Your task to perform on an android device: Add "alienware area 51" to the cart on target.com, then select checkout. Image 0: 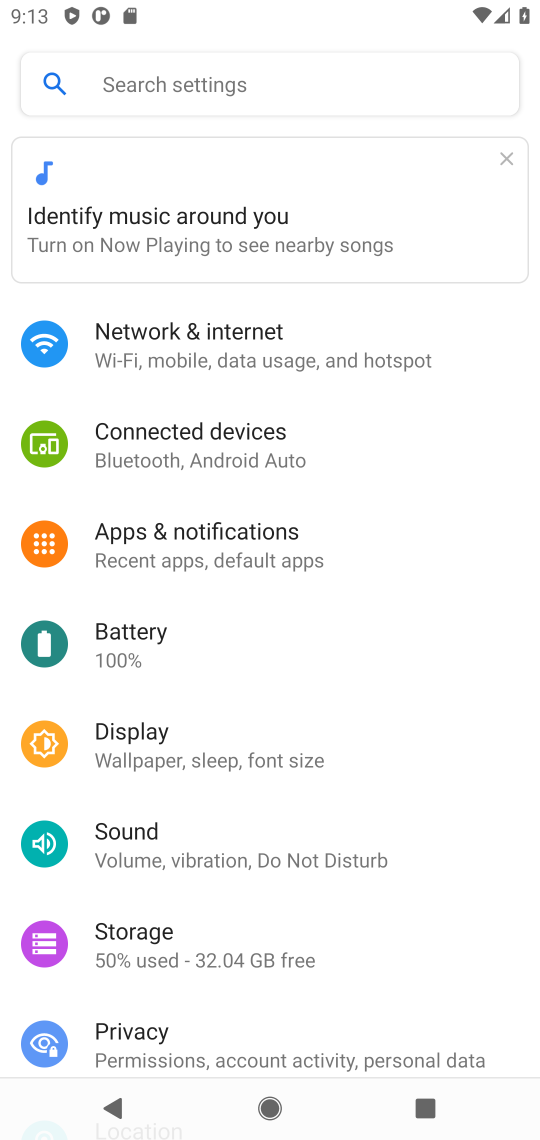
Step 0: press home button
Your task to perform on an android device: Add "alienware area 51" to the cart on target.com, then select checkout. Image 1: 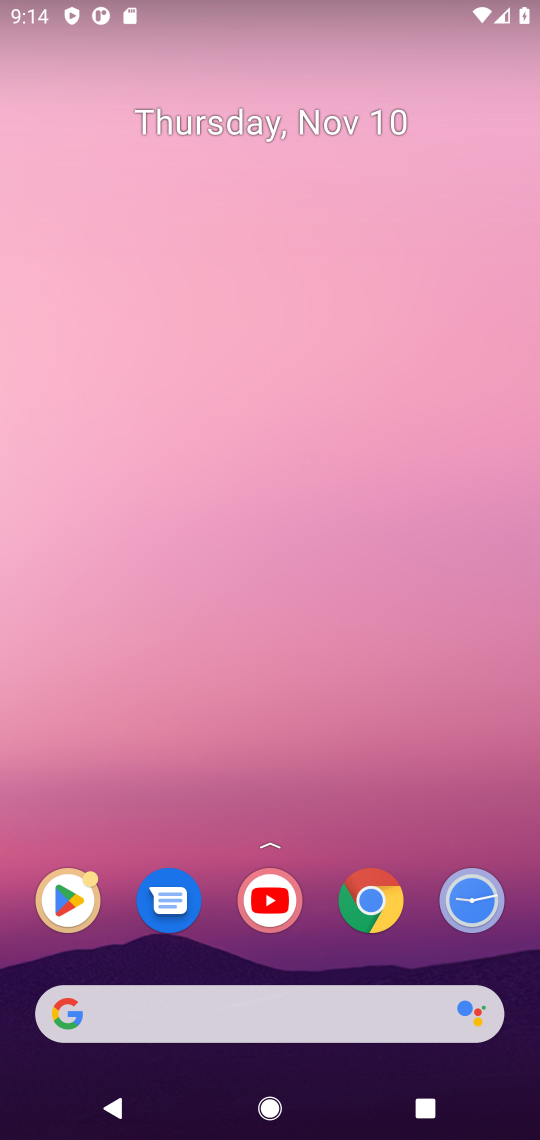
Step 1: click (375, 892)
Your task to perform on an android device: Add "alienware area 51" to the cart on target.com, then select checkout. Image 2: 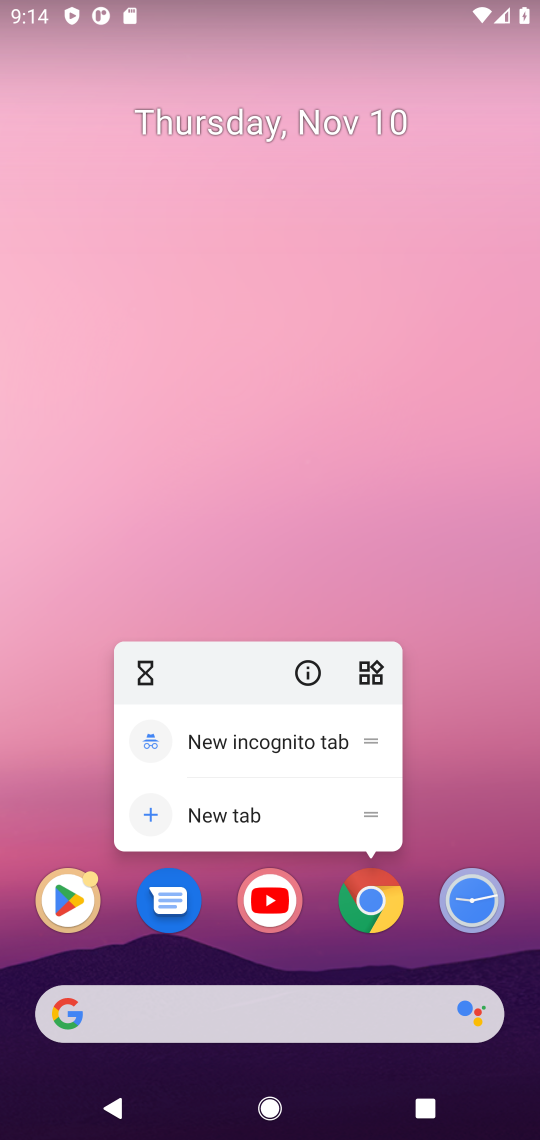
Step 2: click (375, 899)
Your task to perform on an android device: Add "alienware area 51" to the cart on target.com, then select checkout. Image 3: 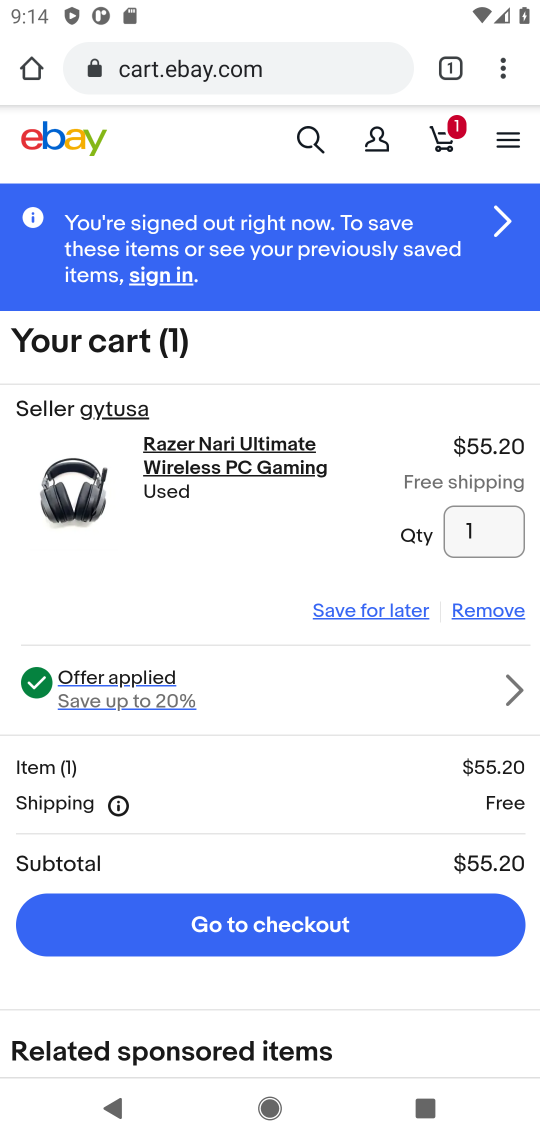
Step 3: click (328, 61)
Your task to perform on an android device: Add "alienware area 51" to the cart on target.com, then select checkout. Image 4: 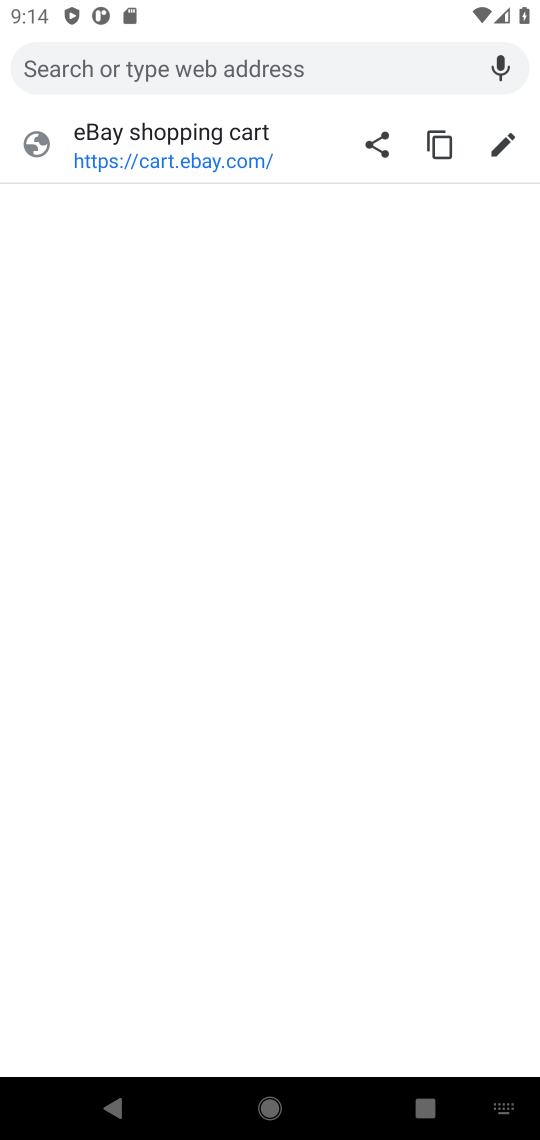
Step 4: type "target.com"
Your task to perform on an android device: Add "alienware area 51" to the cart on target.com, then select checkout. Image 5: 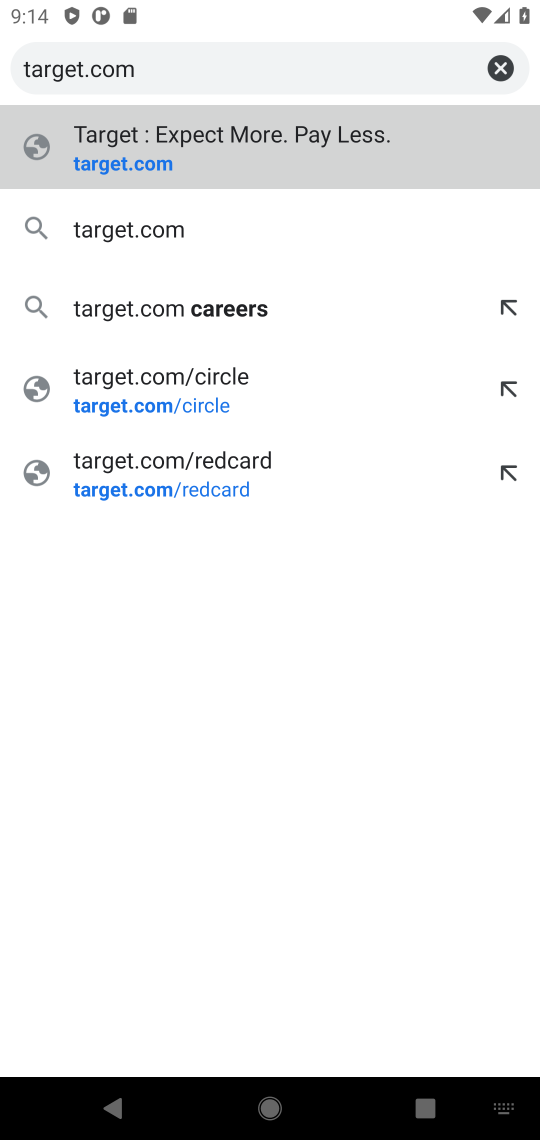
Step 5: press enter
Your task to perform on an android device: Add "alienware area 51" to the cart on target.com, then select checkout. Image 6: 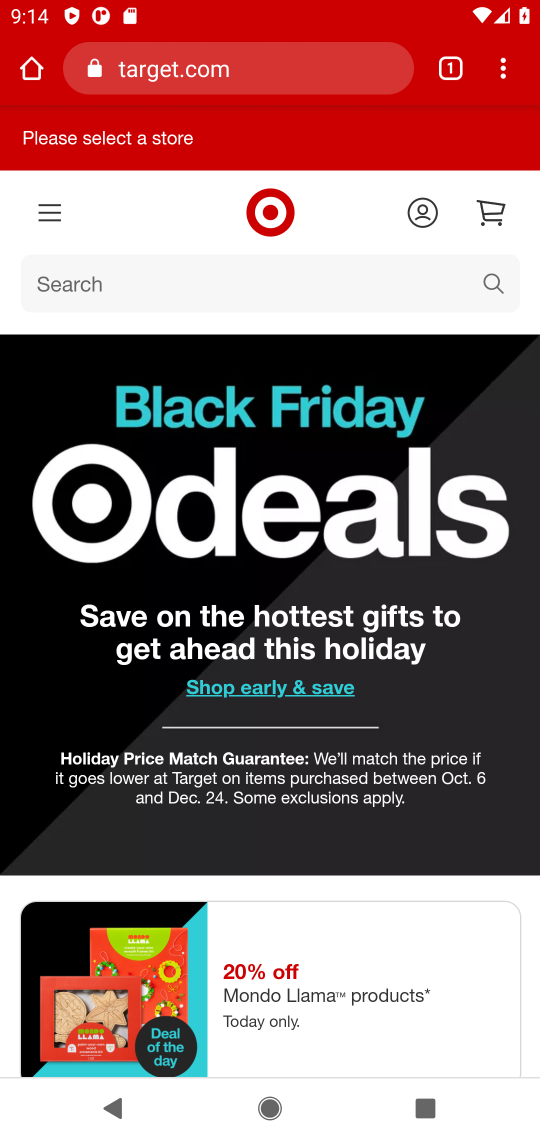
Step 6: click (177, 289)
Your task to perform on an android device: Add "alienware area 51" to the cart on target.com, then select checkout. Image 7: 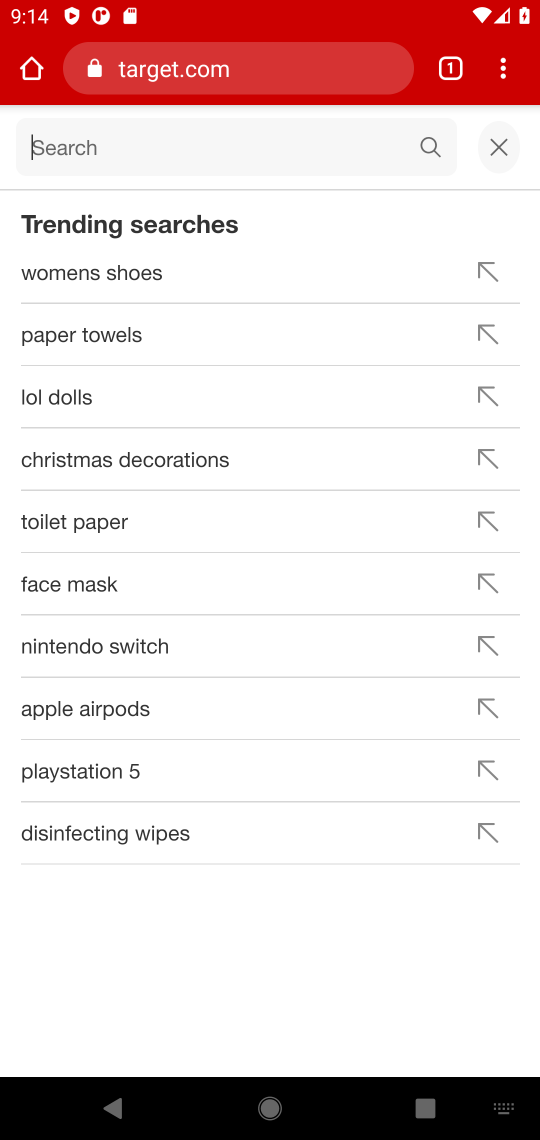
Step 7: type "alienware area 51"
Your task to perform on an android device: Add "alienware area 51" to the cart on target.com, then select checkout. Image 8: 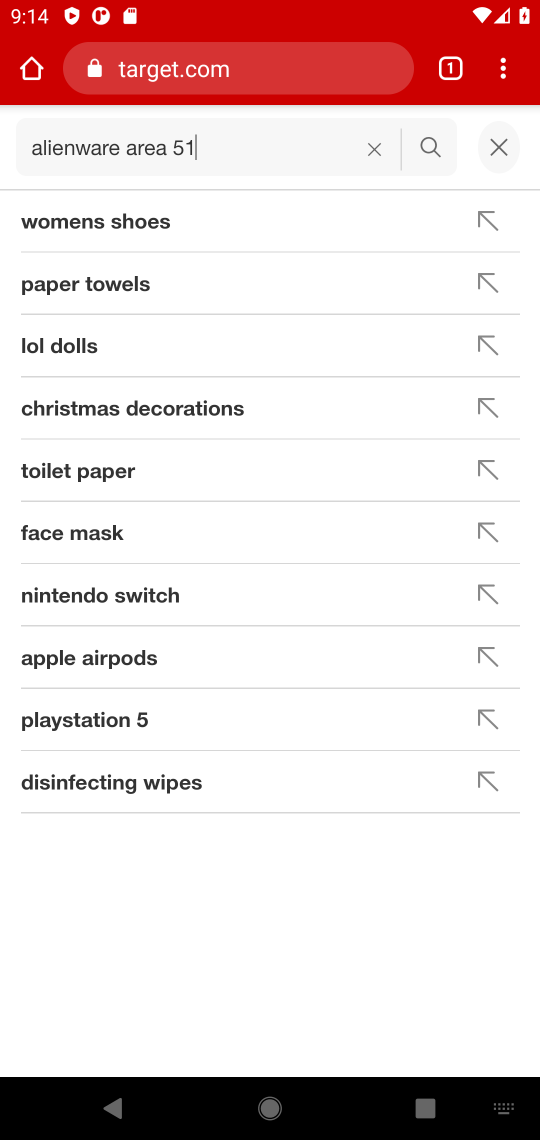
Step 8: press enter
Your task to perform on an android device: Add "alienware area 51" to the cart on target.com, then select checkout. Image 9: 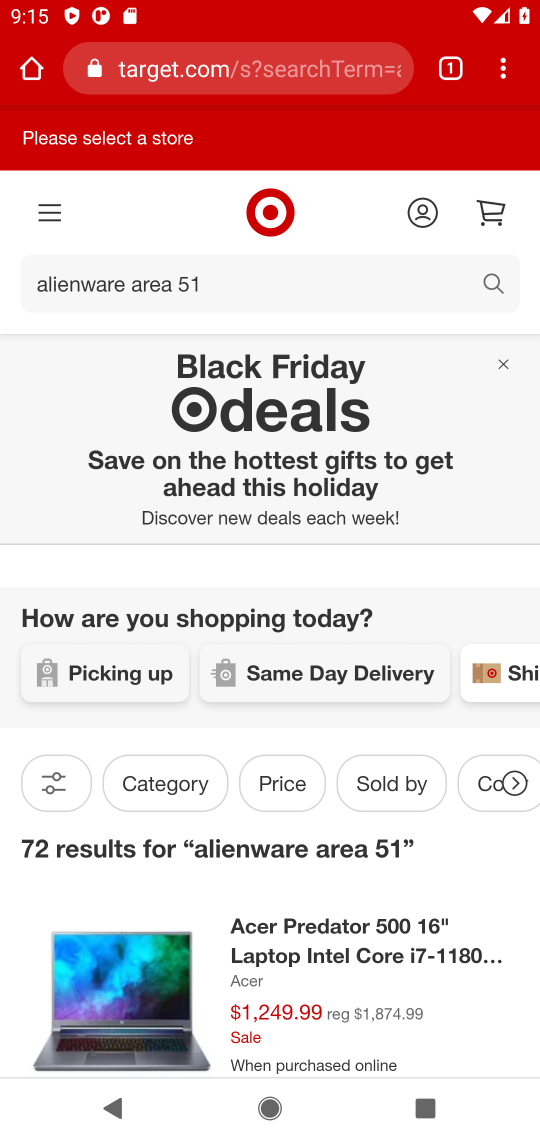
Step 9: task complete